Your task to perform on an android device: Open Google Chrome Image 0: 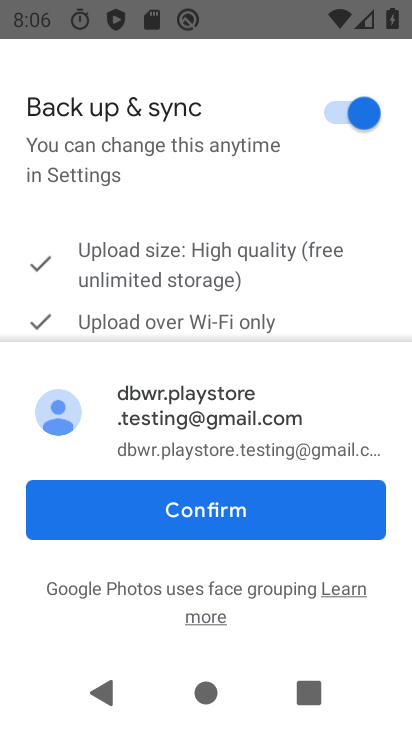
Step 0: press back button
Your task to perform on an android device: Open Google Chrome Image 1: 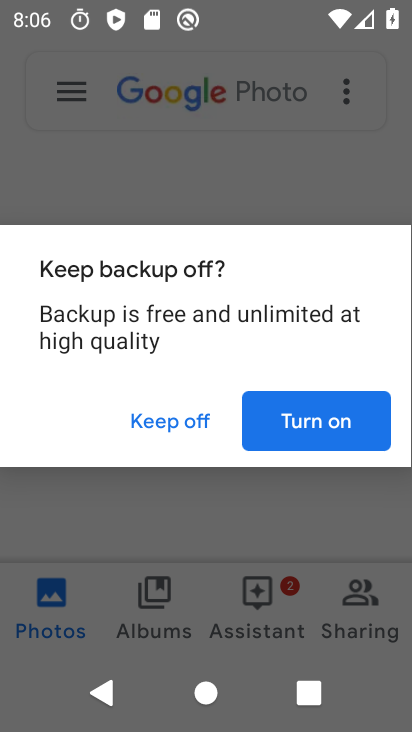
Step 1: press back button
Your task to perform on an android device: Open Google Chrome Image 2: 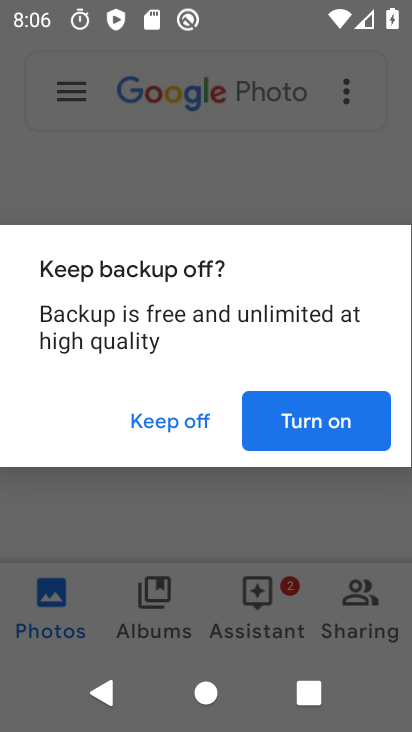
Step 2: press home button
Your task to perform on an android device: Open Google Chrome Image 3: 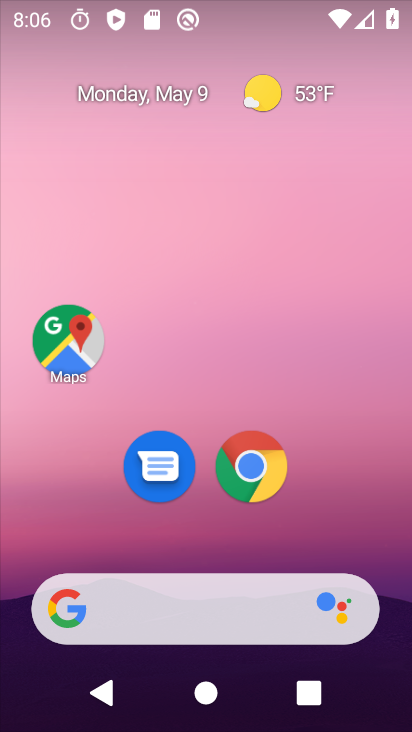
Step 3: click (248, 466)
Your task to perform on an android device: Open Google Chrome Image 4: 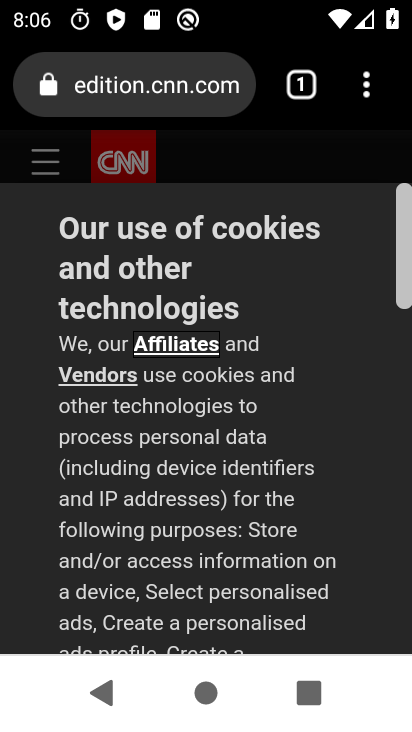
Step 4: task complete